Your task to perform on an android device: delete location history Image 0: 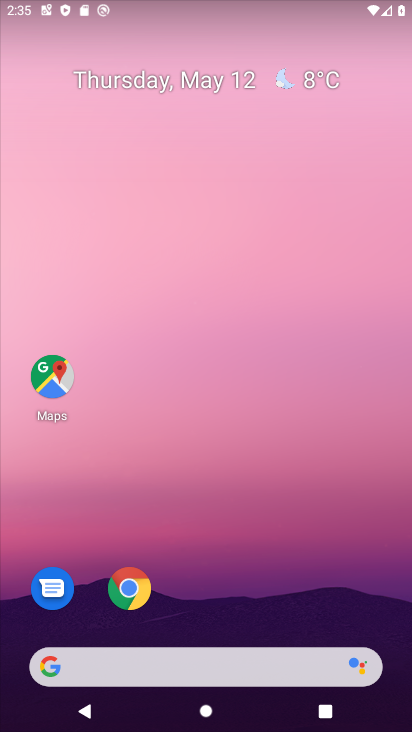
Step 0: drag from (226, 475) to (223, 56)
Your task to perform on an android device: delete location history Image 1: 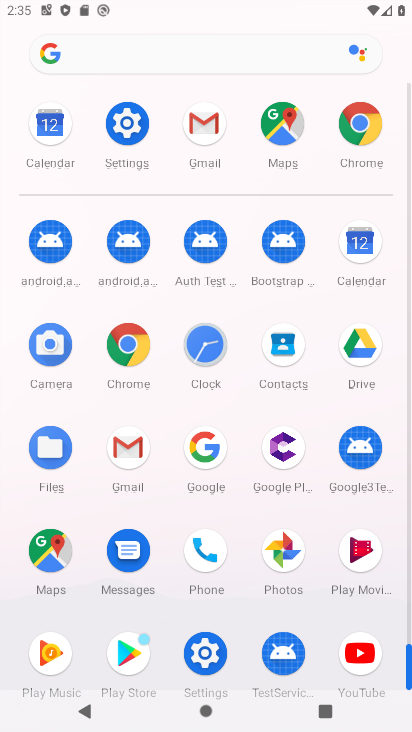
Step 1: drag from (18, 486) to (28, 230)
Your task to perform on an android device: delete location history Image 2: 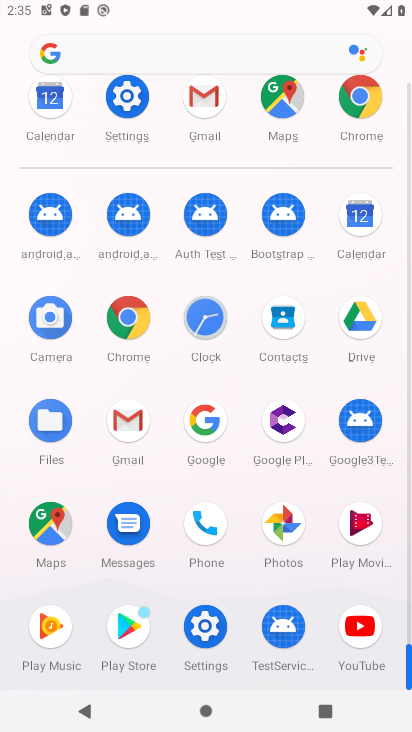
Step 2: click (205, 623)
Your task to perform on an android device: delete location history Image 3: 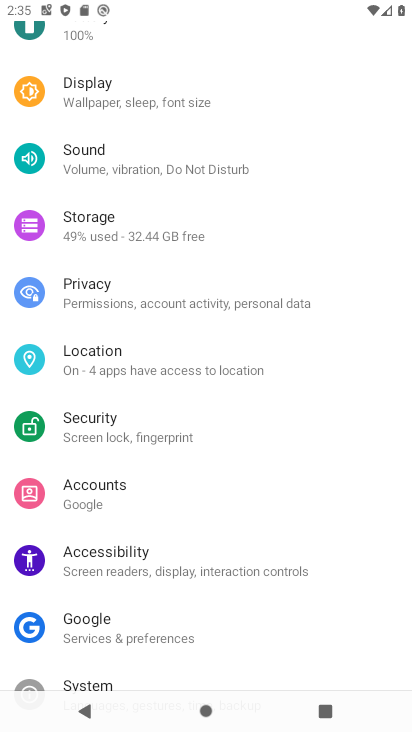
Step 3: click (118, 346)
Your task to perform on an android device: delete location history Image 4: 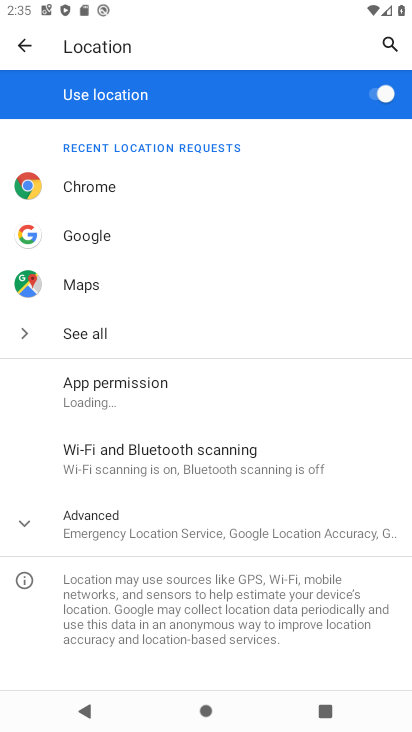
Step 4: click (41, 532)
Your task to perform on an android device: delete location history Image 5: 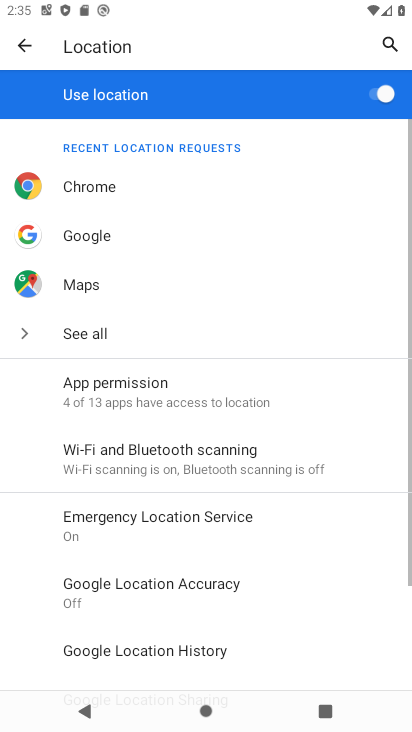
Step 5: drag from (295, 608) to (280, 287)
Your task to perform on an android device: delete location history Image 6: 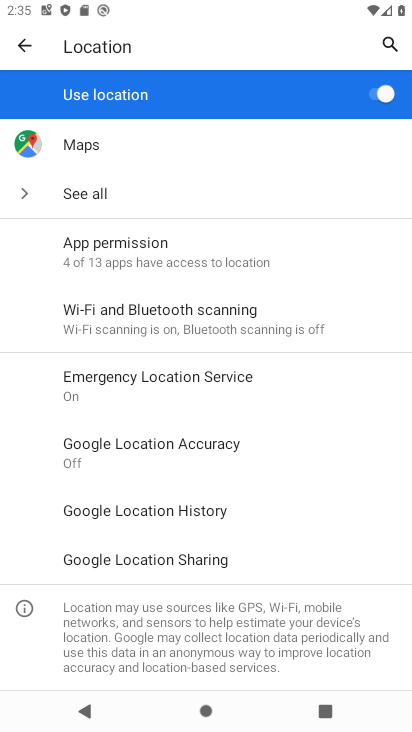
Step 6: click (192, 505)
Your task to perform on an android device: delete location history Image 7: 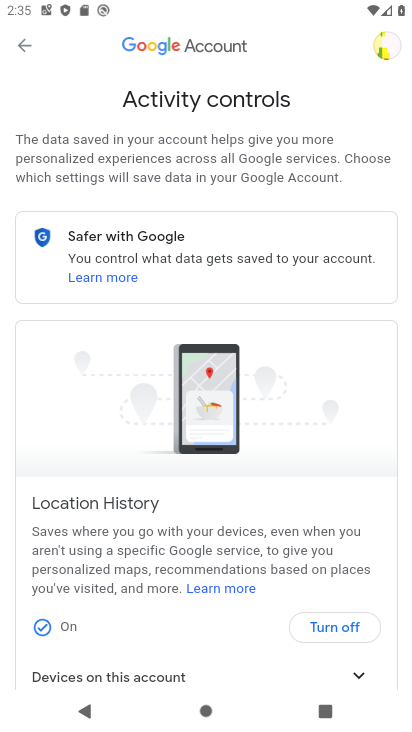
Step 7: drag from (151, 562) to (87, 128)
Your task to perform on an android device: delete location history Image 8: 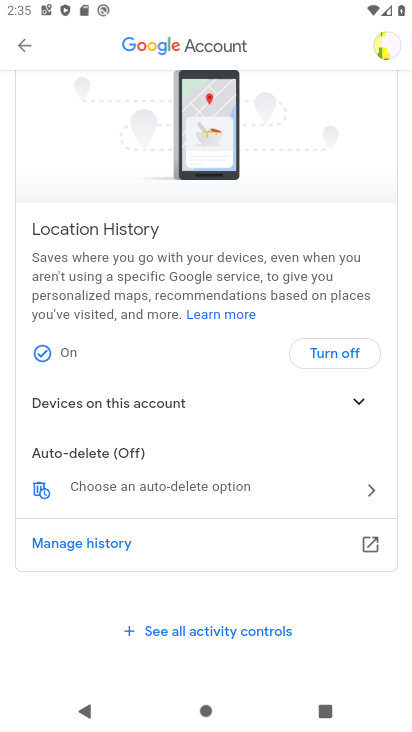
Step 8: click (52, 480)
Your task to perform on an android device: delete location history Image 9: 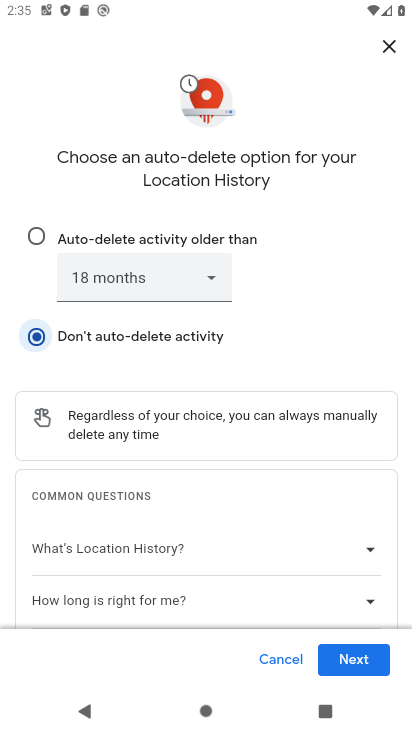
Step 9: click (369, 658)
Your task to perform on an android device: delete location history Image 10: 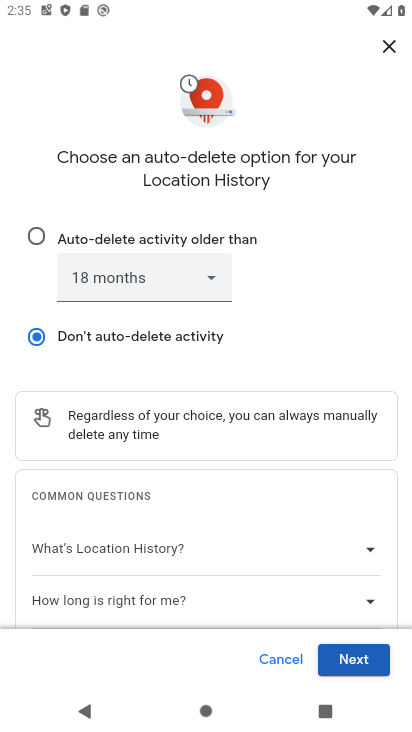
Step 10: click (369, 657)
Your task to perform on an android device: delete location history Image 11: 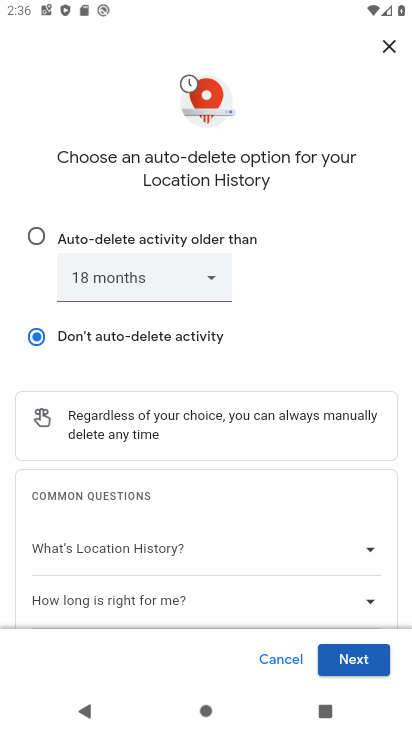
Step 11: click (365, 656)
Your task to perform on an android device: delete location history Image 12: 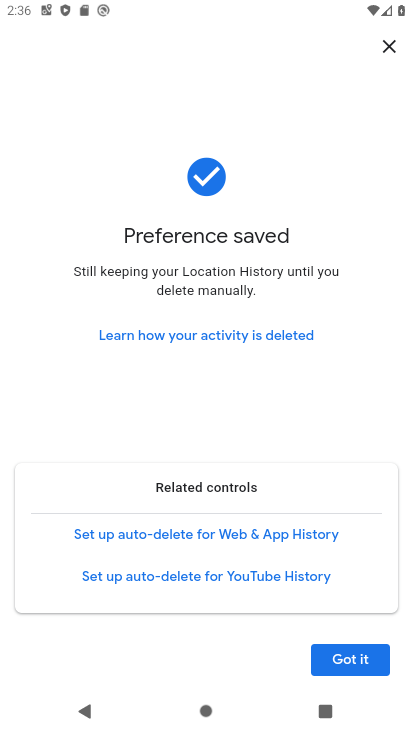
Step 12: task complete